Your task to perform on an android device: install app "Pluto TV - Live TV and Movies" Image 0: 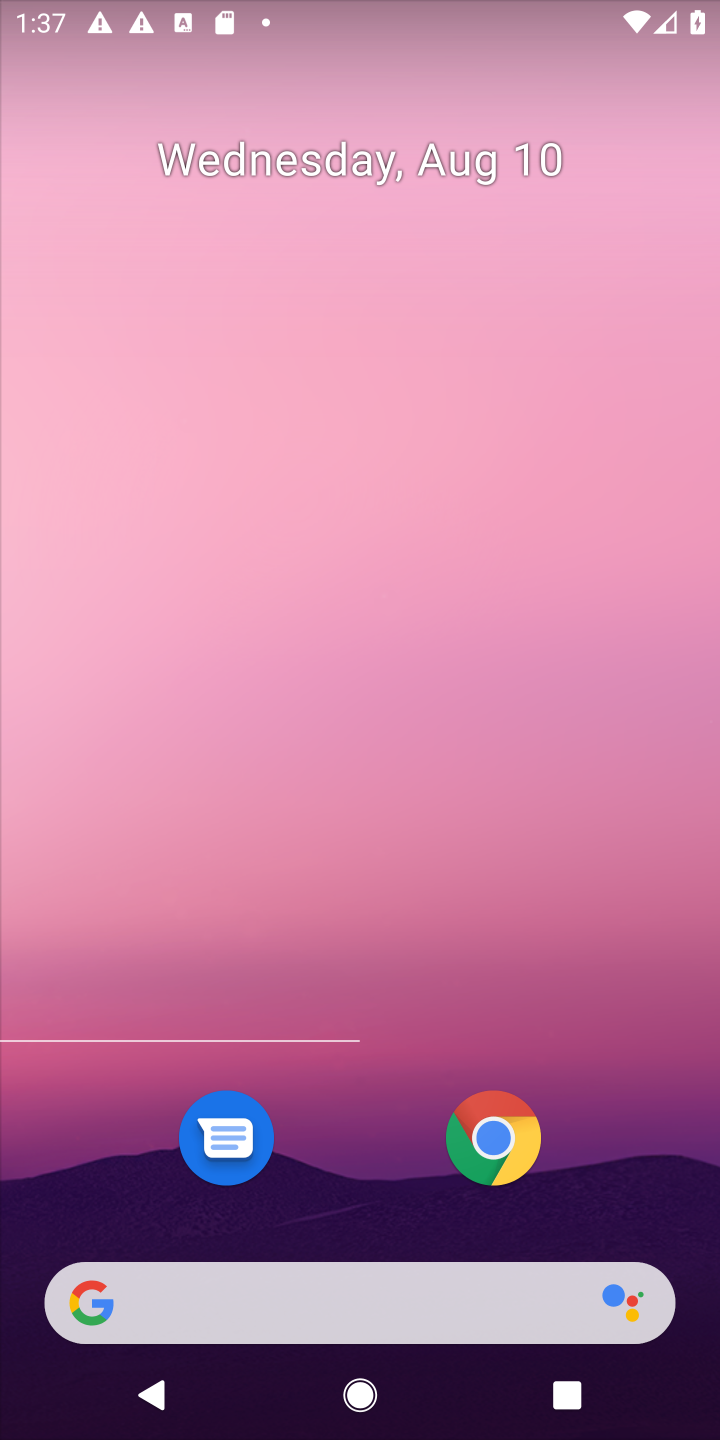
Step 0: press home button
Your task to perform on an android device: install app "Pluto TV - Live TV and Movies" Image 1: 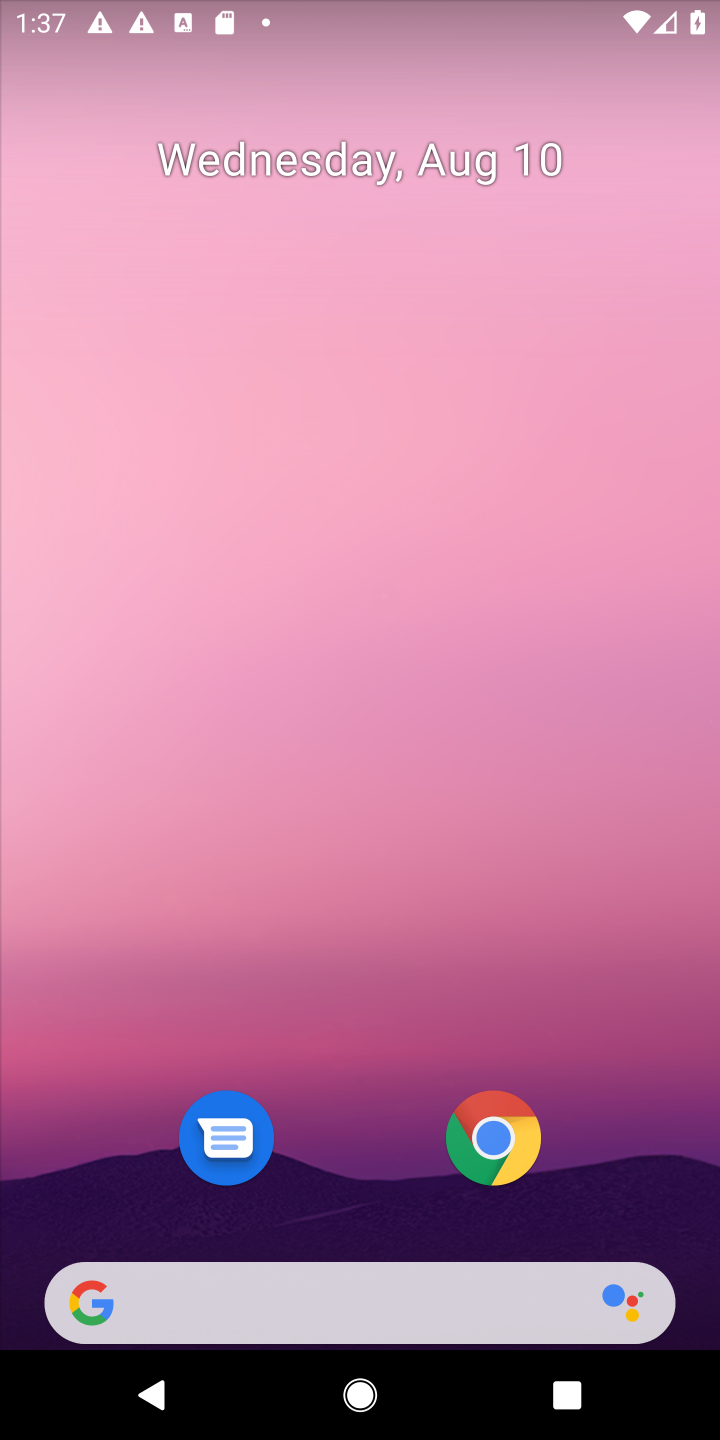
Step 1: press home button
Your task to perform on an android device: install app "Pluto TV - Live TV and Movies" Image 2: 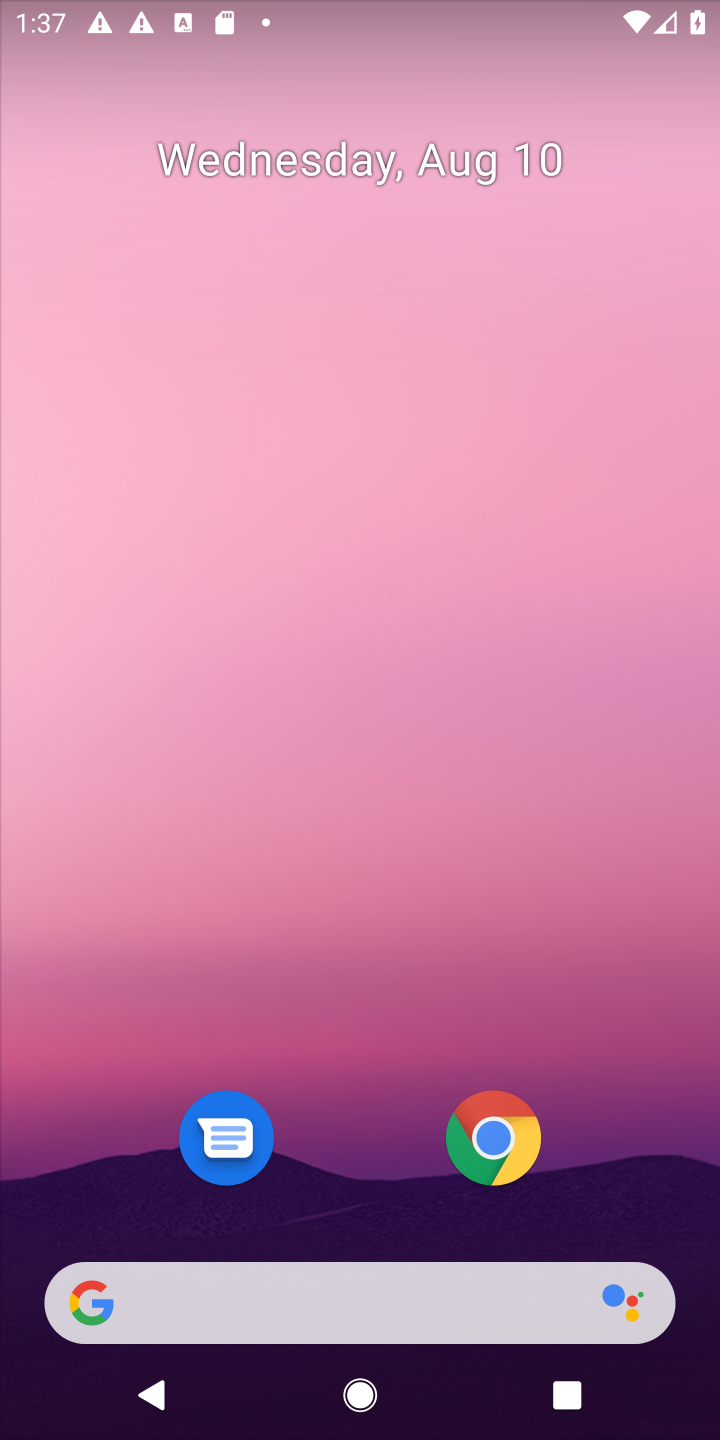
Step 2: drag from (620, 1160) to (640, 106)
Your task to perform on an android device: install app "Pluto TV - Live TV and Movies" Image 3: 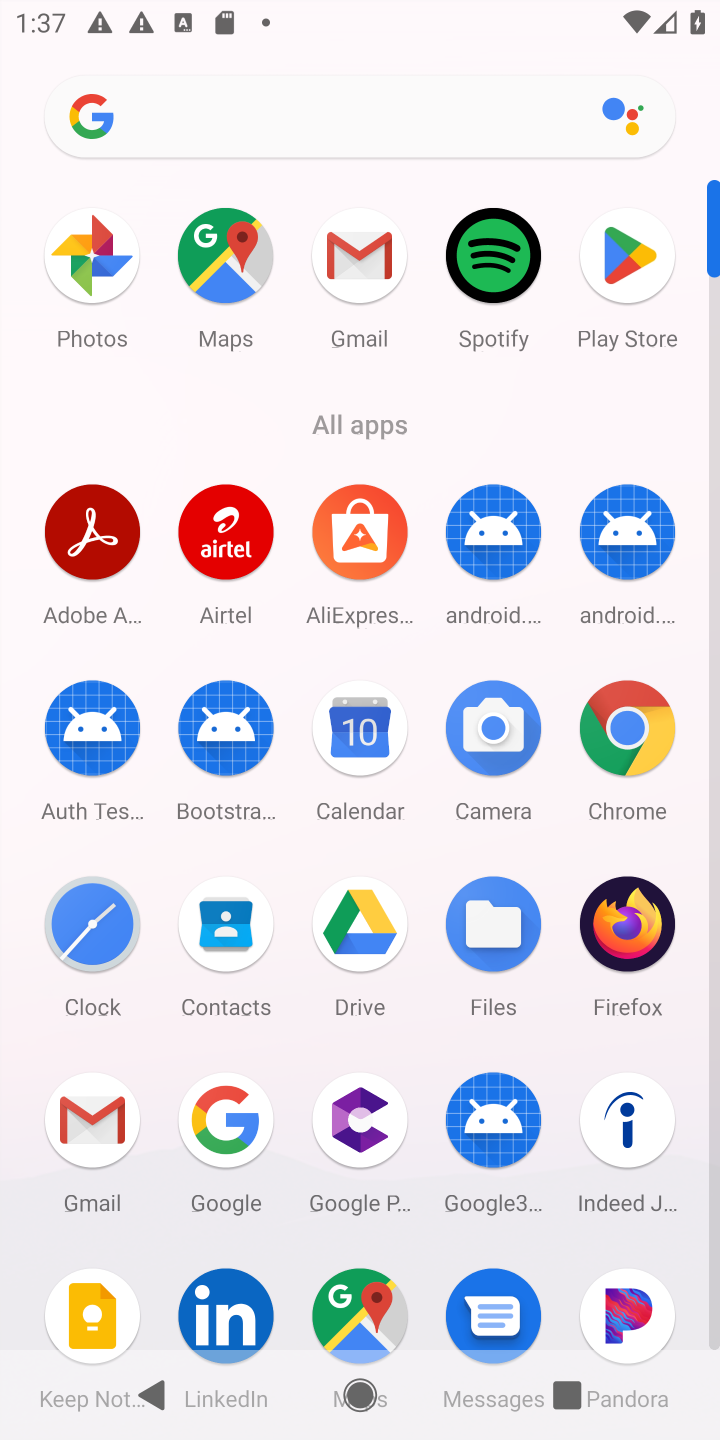
Step 3: click (627, 259)
Your task to perform on an android device: install app "Pluto TV - Live TV and Movies" Image 4: 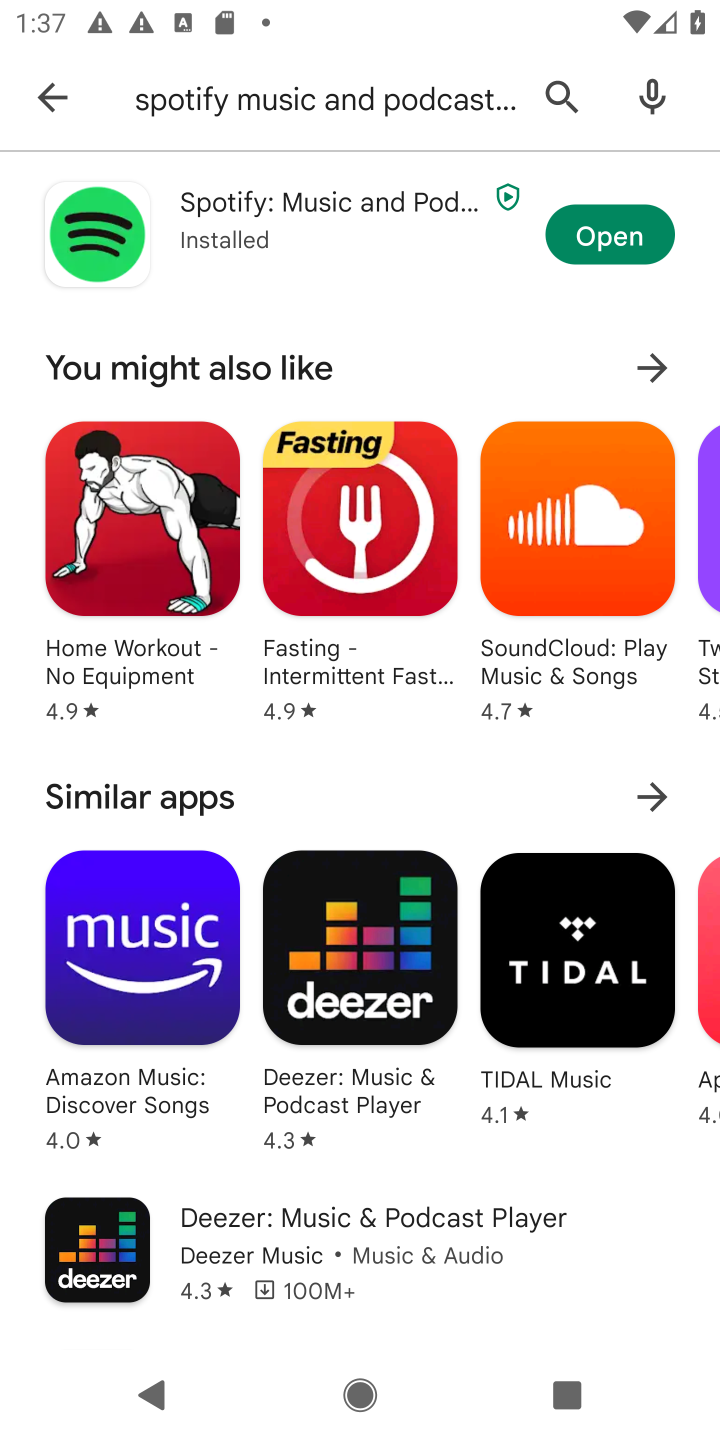
Step 4: click (551, 85)
Your task to perform on an android device: install app "Pluto TV - Live TV and Movies" Image 5: 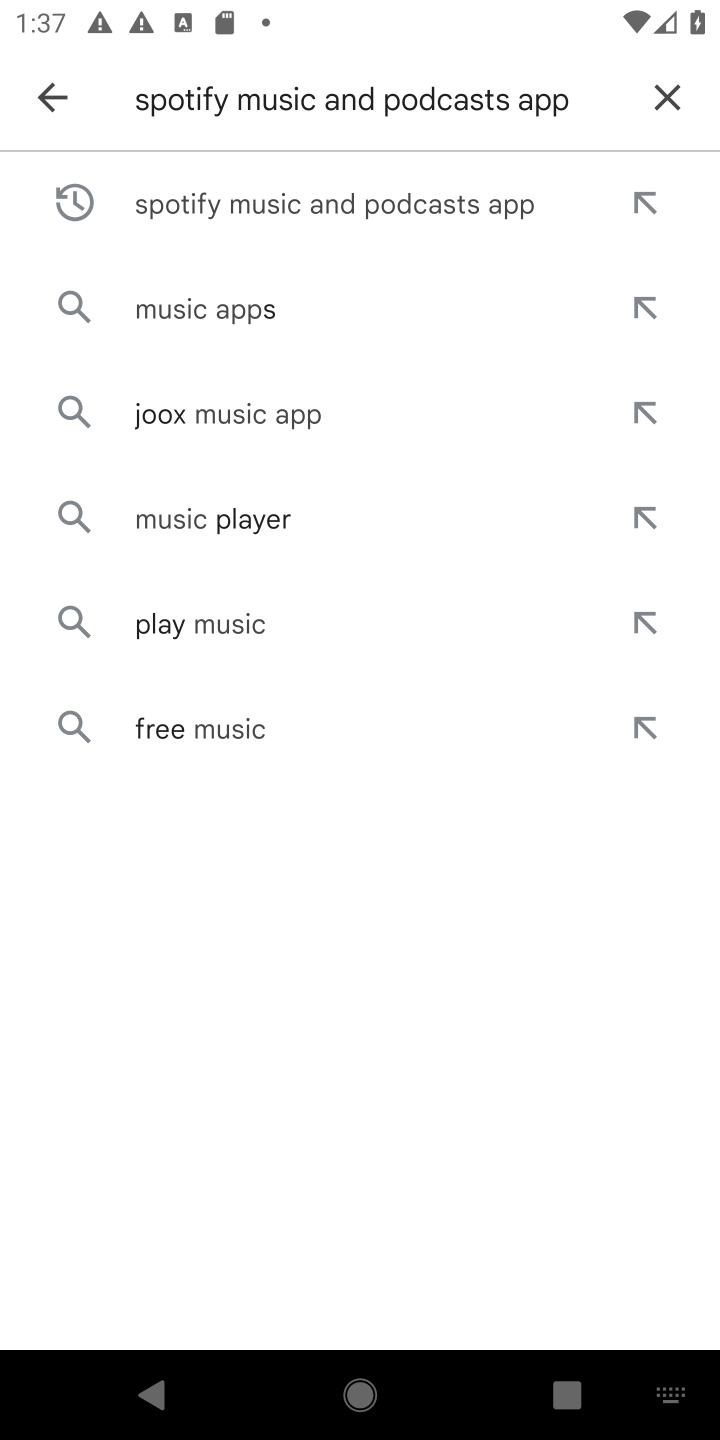
Step 5: click (667, 88)
Your task to perform on an android device: install app "Pluto TV - Live TV and Movies" Image 6: 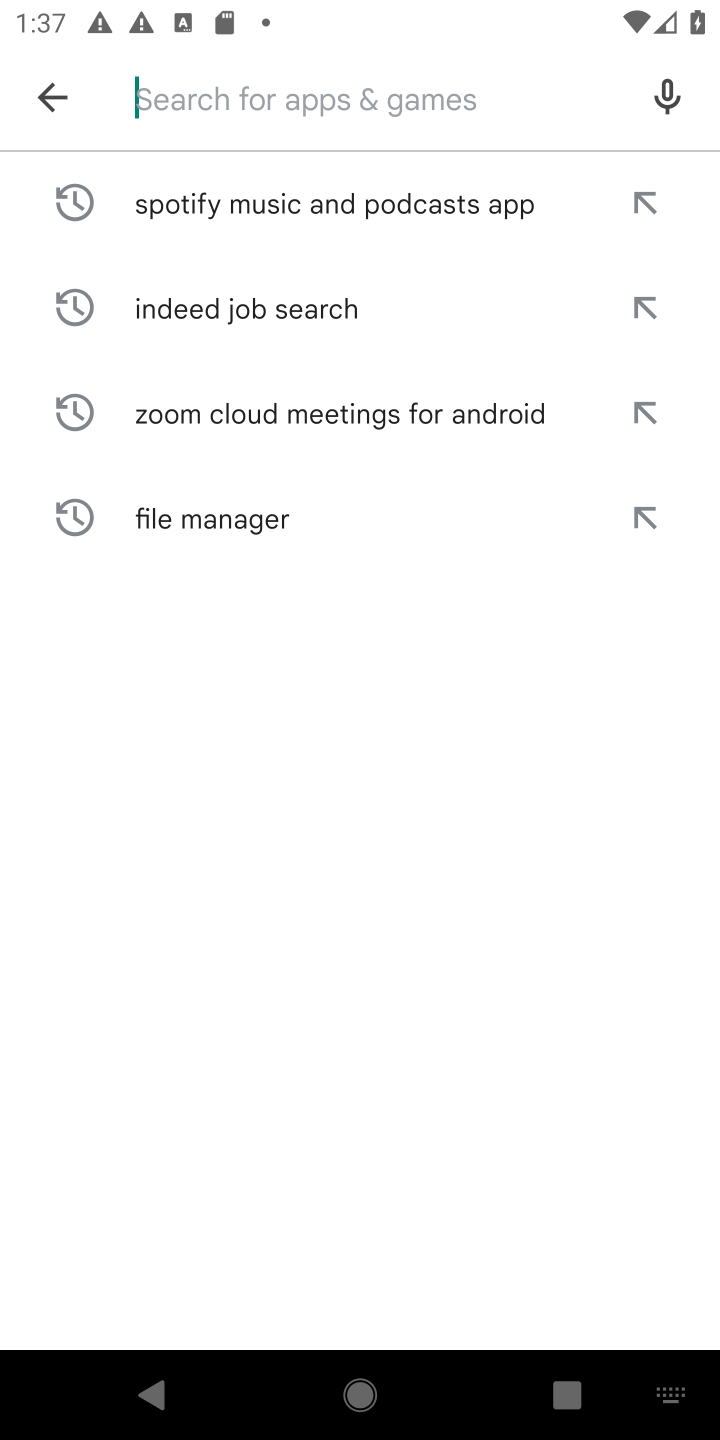
Step 6: type "Pluto TV - Live TV and Movies"
Your task to perform on an android device: install app "Pluto TV - Live TV and Movies" Image 7: 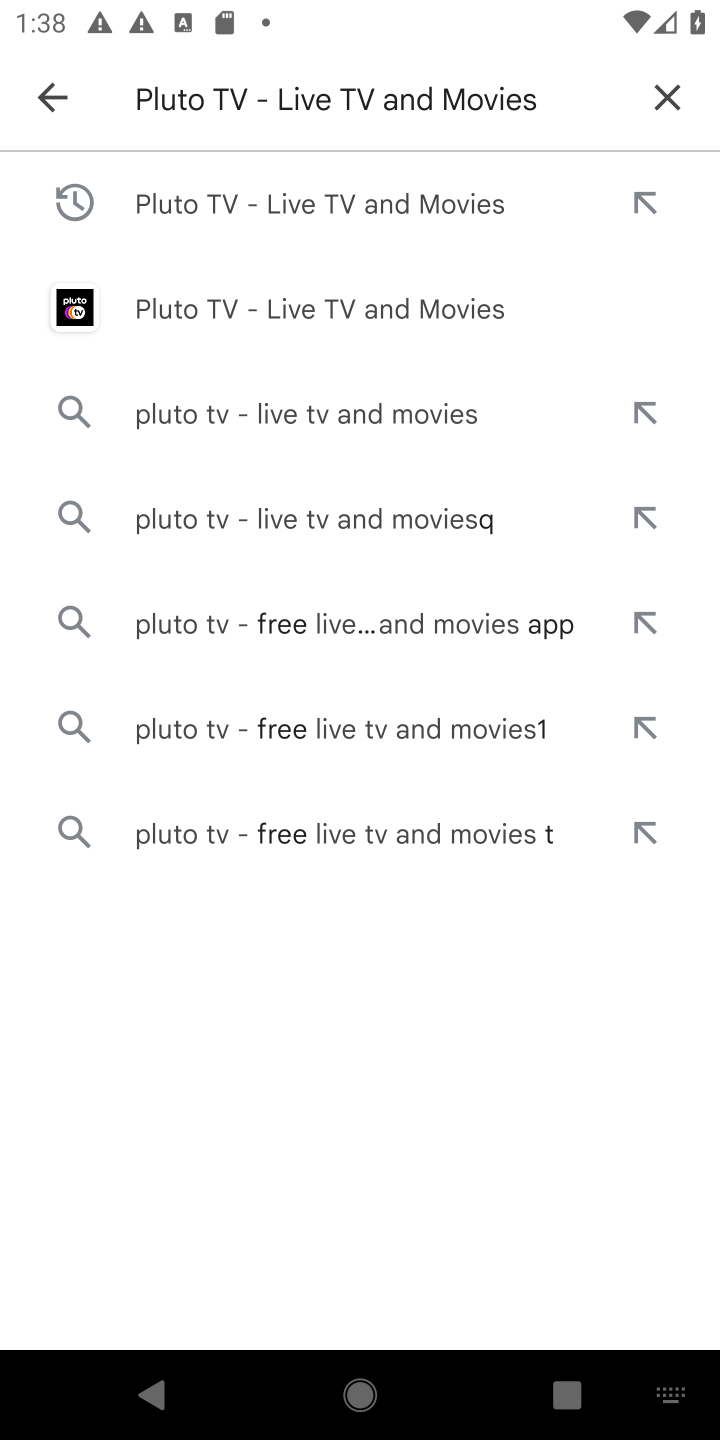
Step 7: click (456, 311)
Your task to perform on an android device: install app "Pluto TV - Live TV and Movies" Image 8: 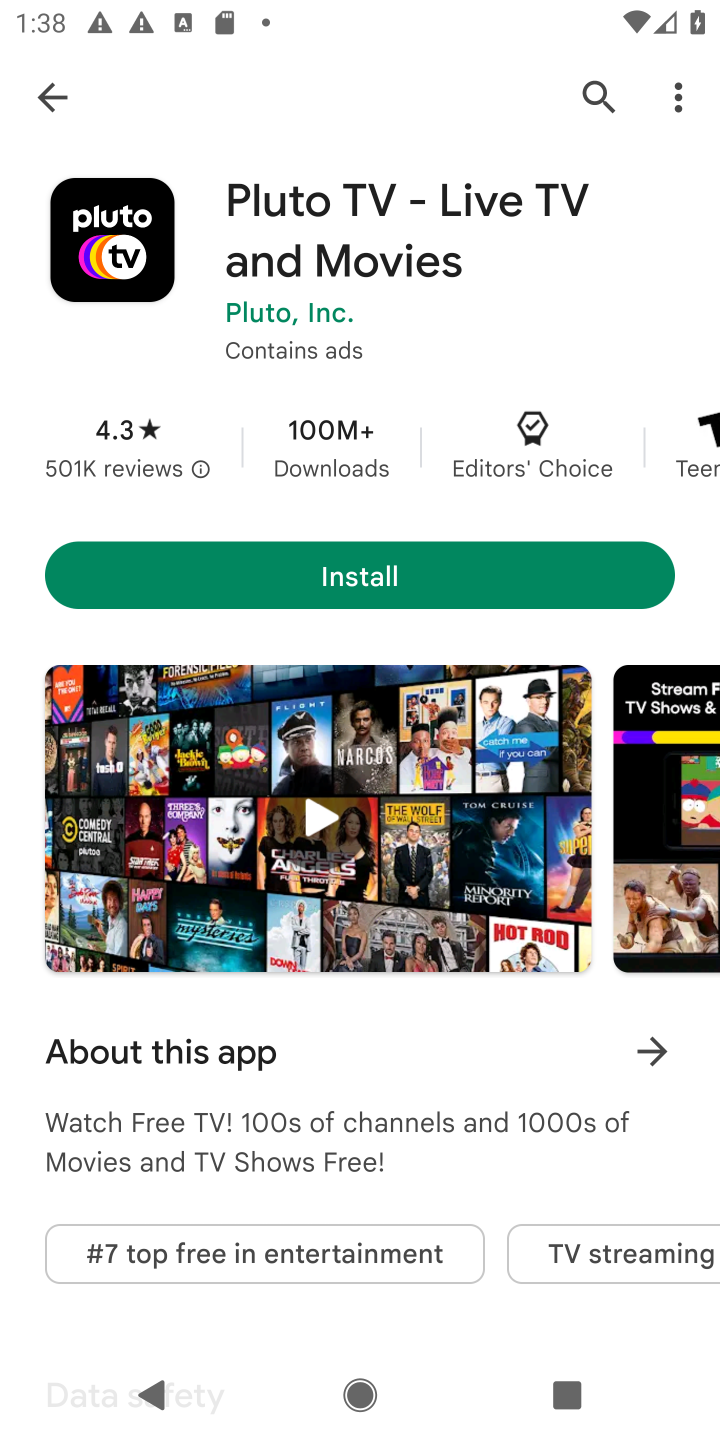
Step 8: click (541, 576)
Your task to perform on an android device: install app "Pluto TV - Live TV and Movies" Image 9: 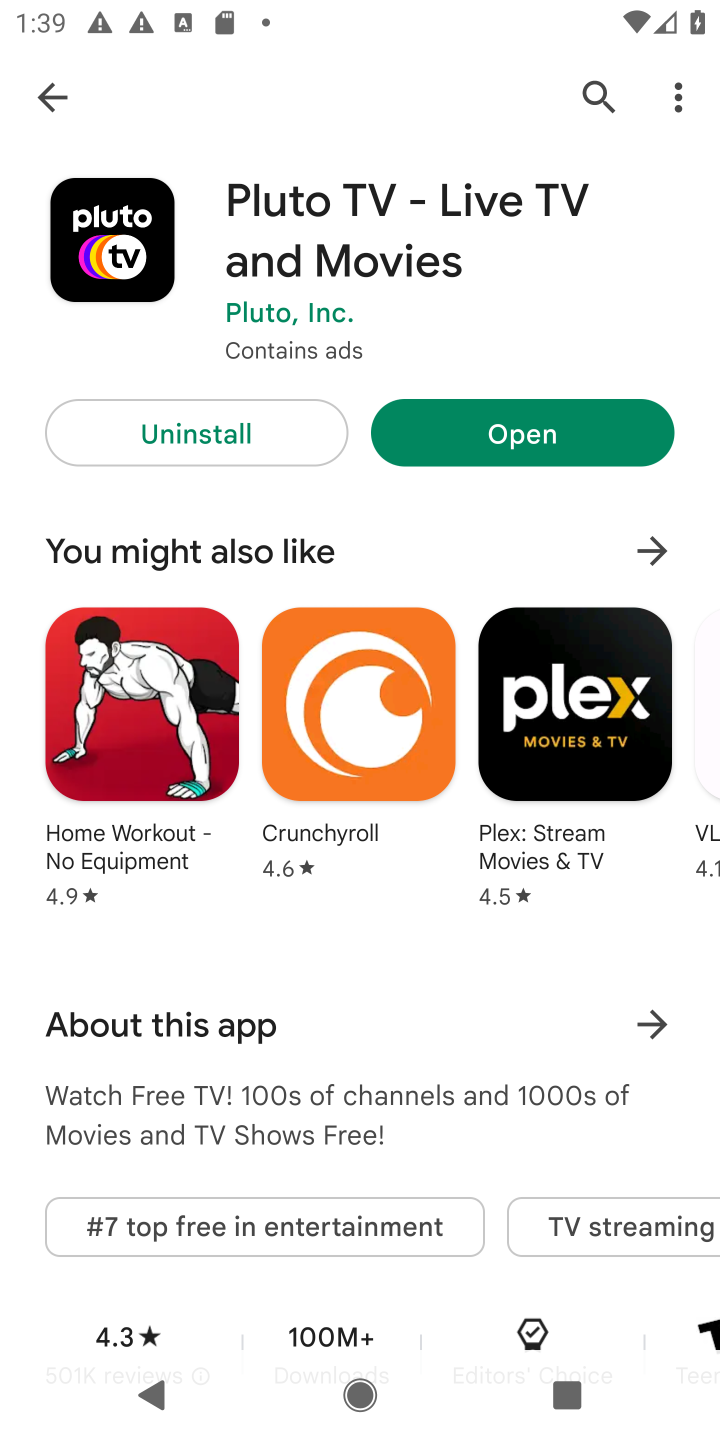
Step 9: task complete